Your task to perform on an android device: What's on my calendar tomorrow? Image 0: 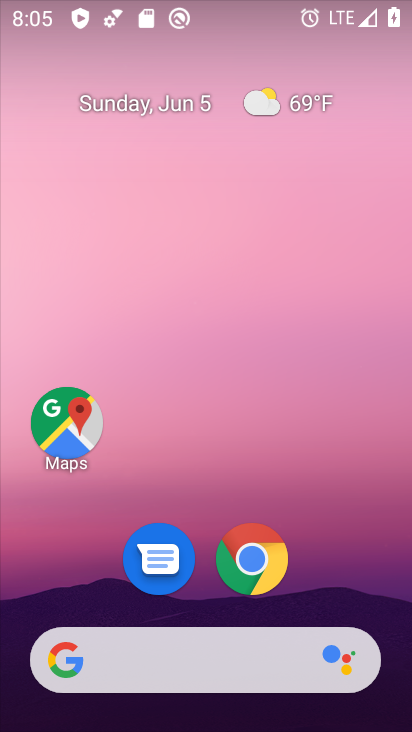
Step 0: drag from (351, 469) to (306, 97)
Your task to perform on an android device: What's on my calendar tomorrow? Image 1: 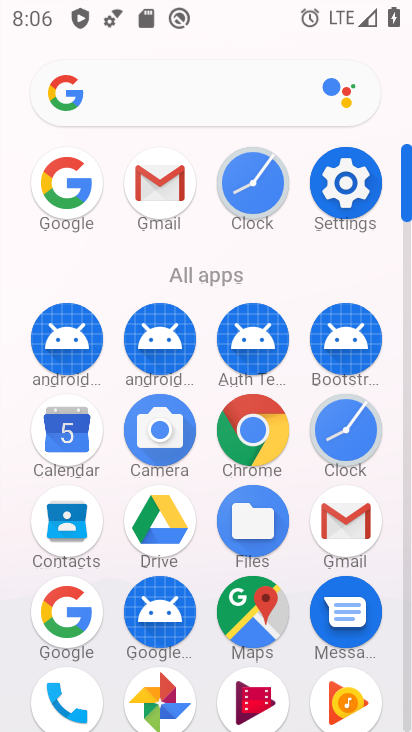
Step 1: click (73, 433)
Your task to perform on an android device: What's on my calendar tomorrow? Image 2: 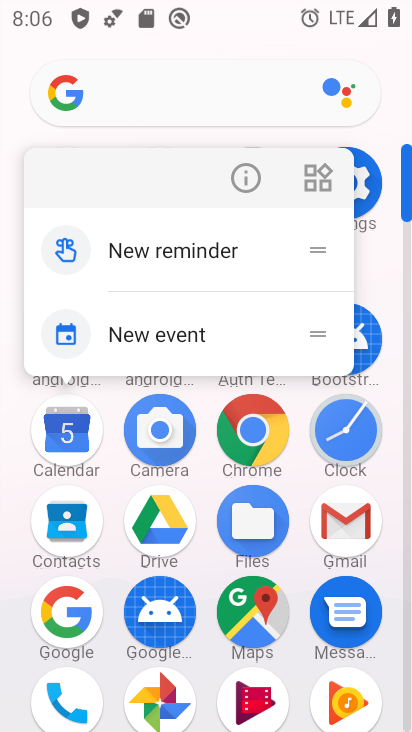
Step 2: click (75, 444)
Your task to perform on an android device: What's on my calendar tomorrow? Image 3: 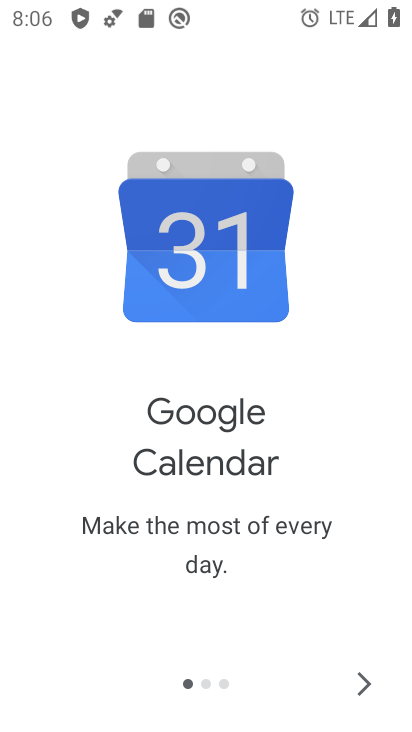
Step 3: click (377, 676)
Your task to perform on an android device: What's on my calendar tomorrow? Image 4: 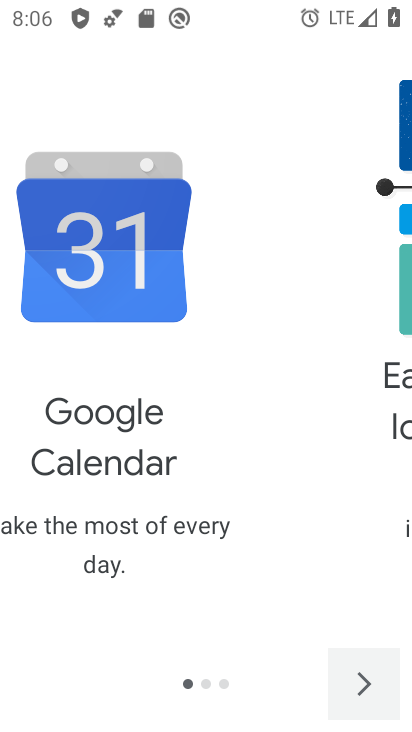
Step 4: click (374, 672)
Your task to perform on an android device: What's on my calendar tomorrow? Image 5: 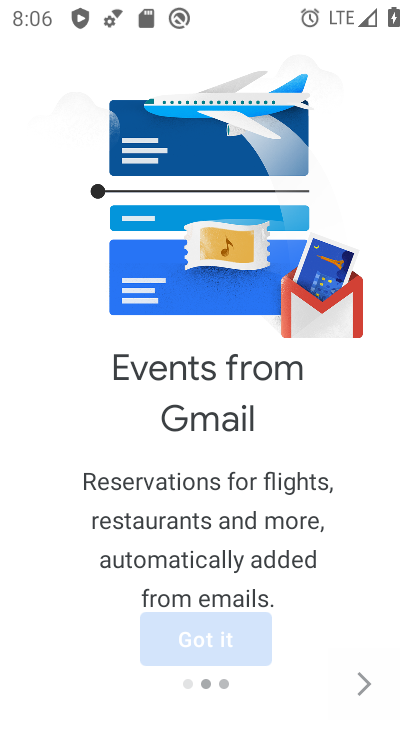
Step 5: click (374, 672)
Your task to perform on an android device: What's on my calendar tomorrow? Image 6: 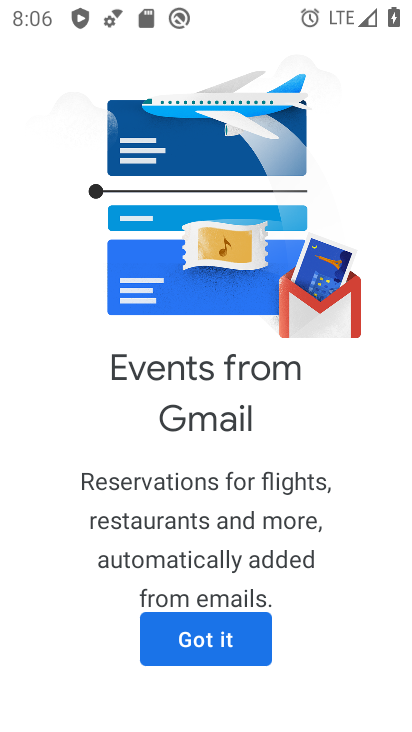
Step 6: click (230, 642)
Your task to perform on an android device: What's on my calendar tomorrow? Image 7: 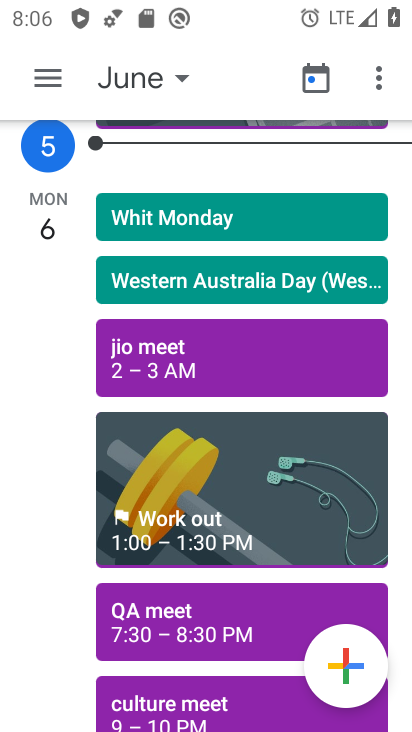
Step 7: click (63, 229)
Your task to perform on an android device: What's on my calendar tomorrow? Image 8: 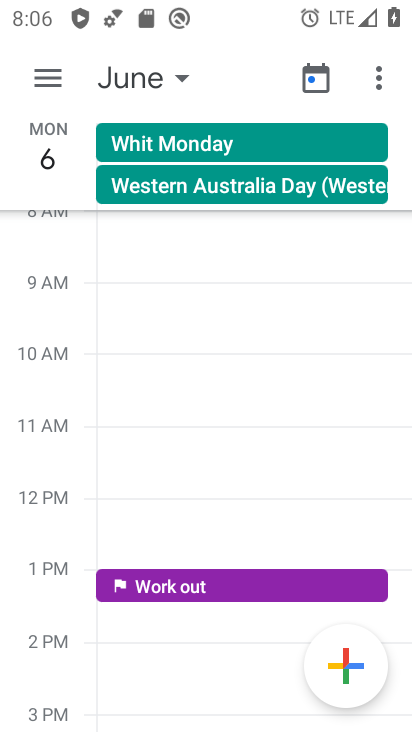
Step 8: task complete